Your task to perform on an android device: Open calendar and show me the third week of next month Image 0: 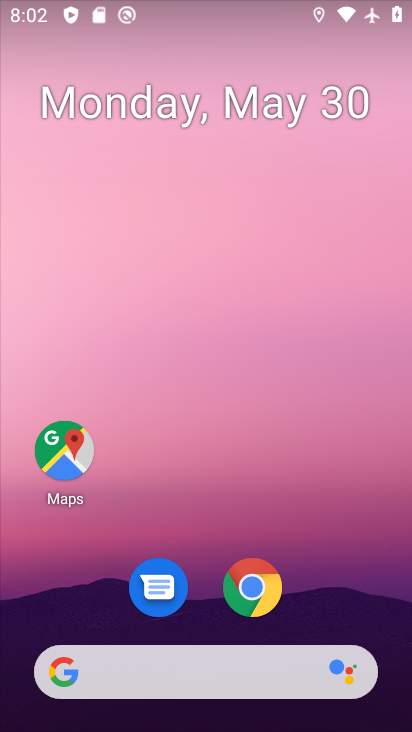
Step 0: press home button
Your task to perform on an android device: Open calendar and show me the third week of next month Image 1: 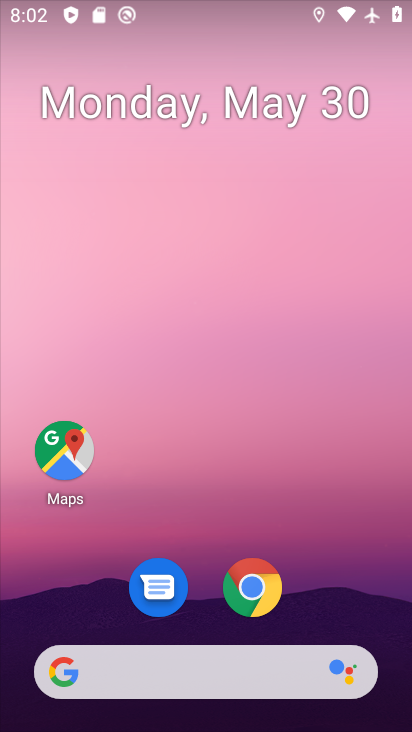
Step 1: drag from (219, 675) to (337, 122)
Your task to perform on an android device: Open calendar and show me the third week of next month Image 2: 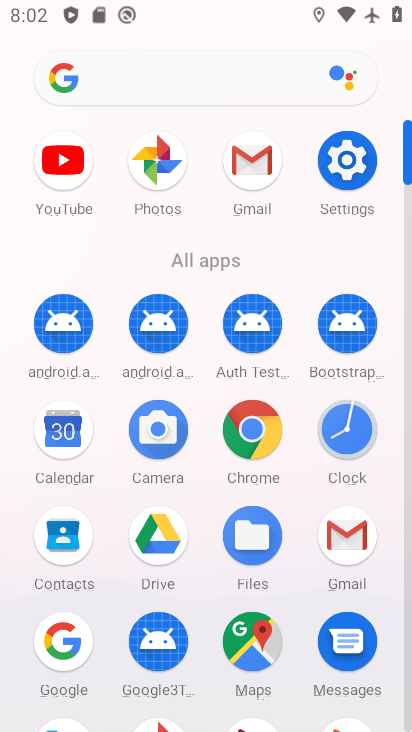
Step 2: click (73, 436)
Your task to perform on an android device: Open calendar and show me the third week of next month Image 3: 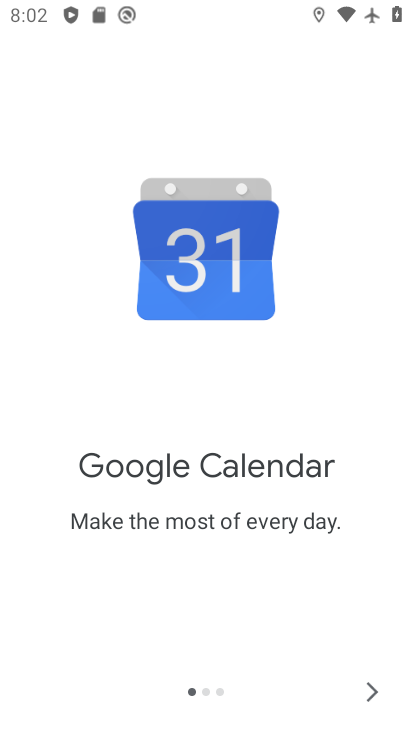
Step 3: click (374, 691)
Your task to perform on an android device: Open calendar and show me the third week of next month Image 4: 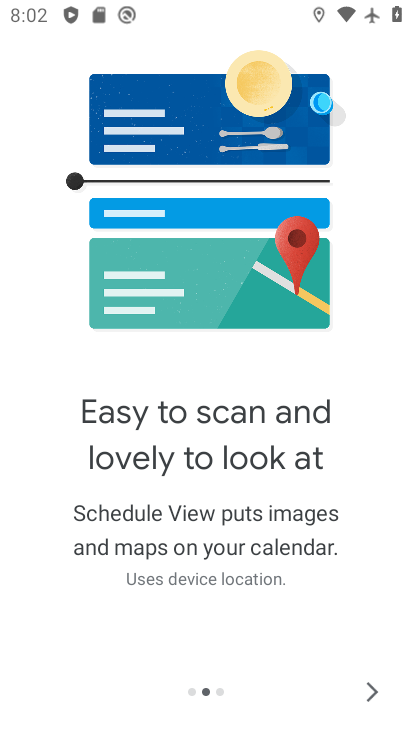
Step 4: click (374, 691)
Your task to perform on an android device: Open calendar and show me the third week of next month Image 5: 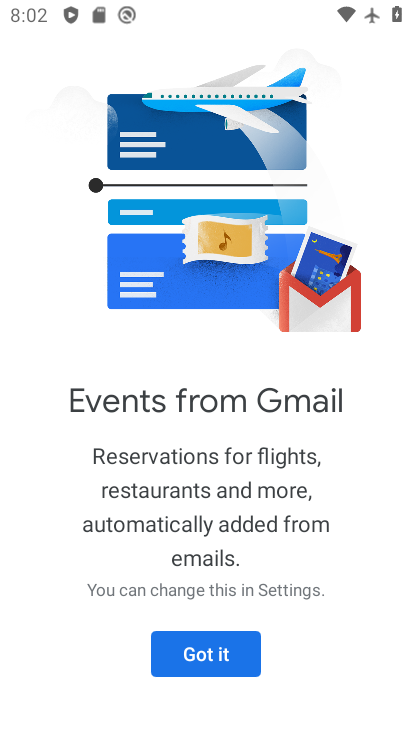
Step 5: click (224, 656)
Your task to perform on an android device: Open calendar and show me the third week of next month Image 6: 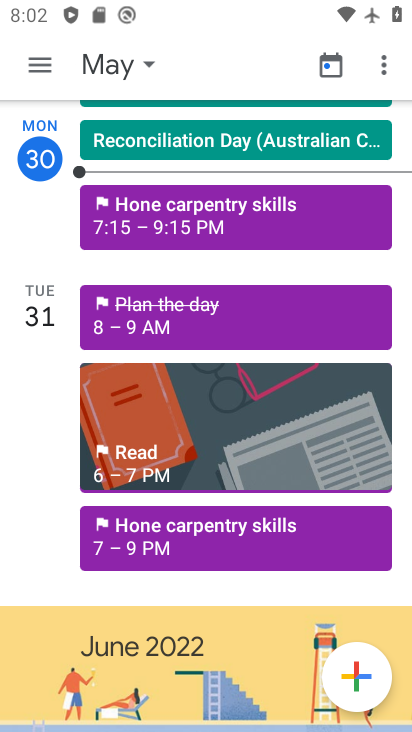
Step 6: click (102, 58)
Your task to perform on an android device: Open calendar and show me the third week of next month Image 7: 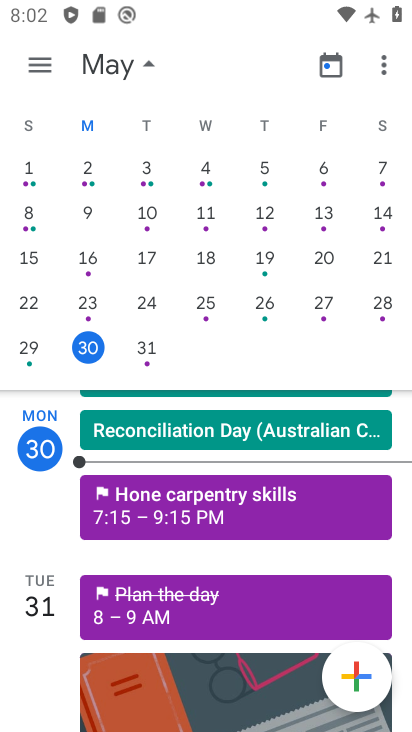
Step 7: drag from (368, 252) to (0, 387)
Your task to perform on an android device: Open calendar and show me the third week of next month Image 8: 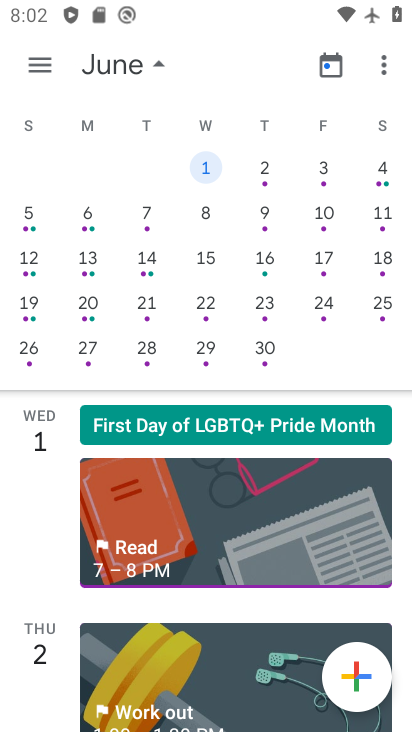
Step 8: click (32, 260)
Your task to perform on an android device: Open calendar and show me the third week of next month Image 9: 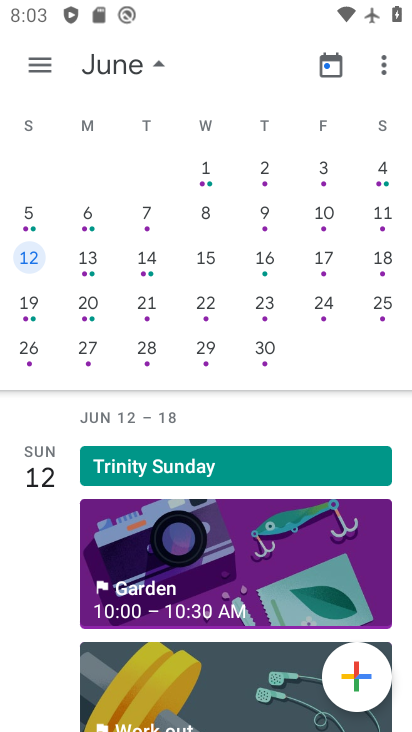
Step 9: click (36, 65)
Your task to perform on an android device: Open calendar and show me the third week of next month Image 10: 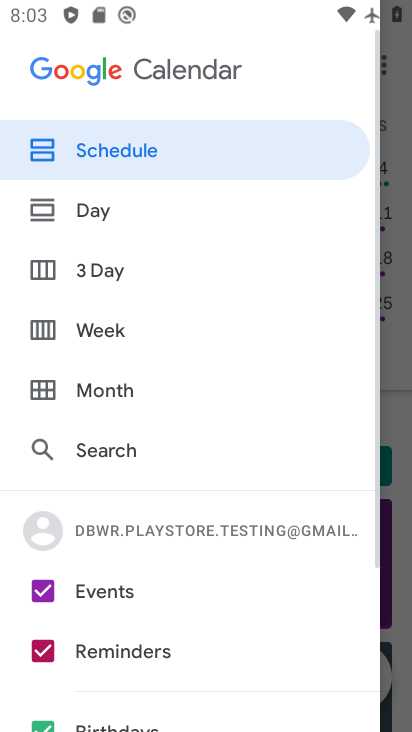
Step 10: click (97, 323)
Your task to perform on an android device: Open calendar and show me the third week of next month Image 11: 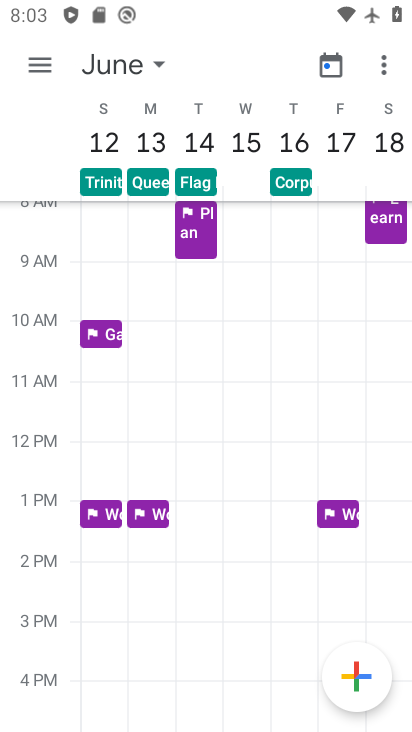
Step 11: task complete